Your task to perform on an android device: open a new tab in the chrome app Image 0: 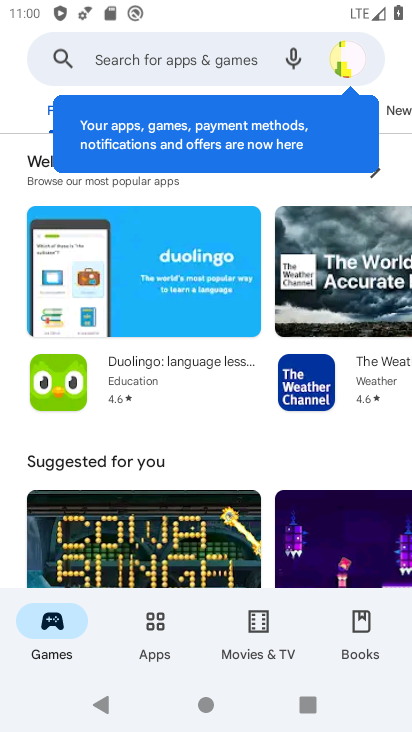
Step 0: press home button
Your task to perform on an android device: open a new tab in the chrome app Image 1: 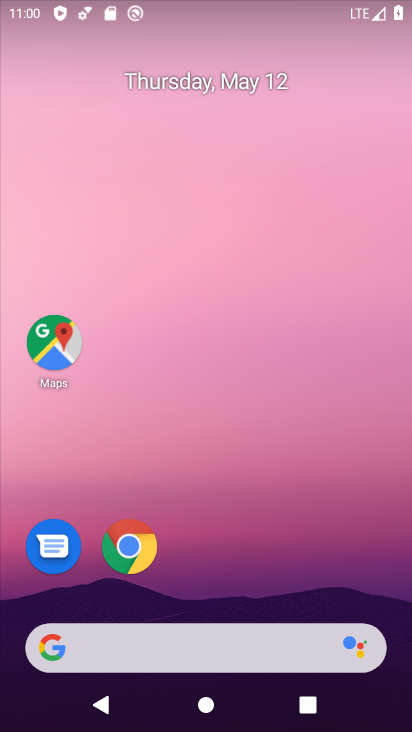
Step 1: click (130, 548)
Your task to perform on an android device: open a new tab in the chrome app Image 2: 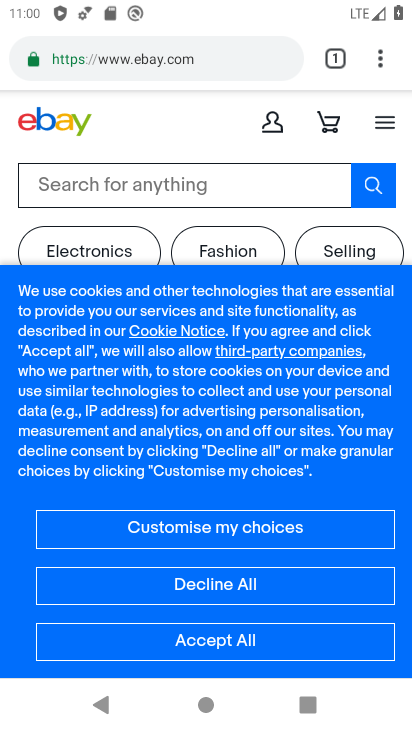
Step 2: click (381, 65)
Your task to perform on an android device: open a new tab in the chrome app Image 3: 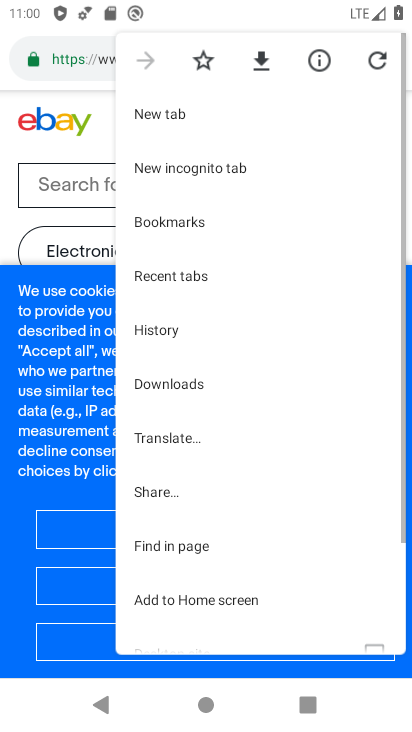
Step 3: click (170, 110)
Your task to perform on an android device: open a new tab in the chrome app Image 4: 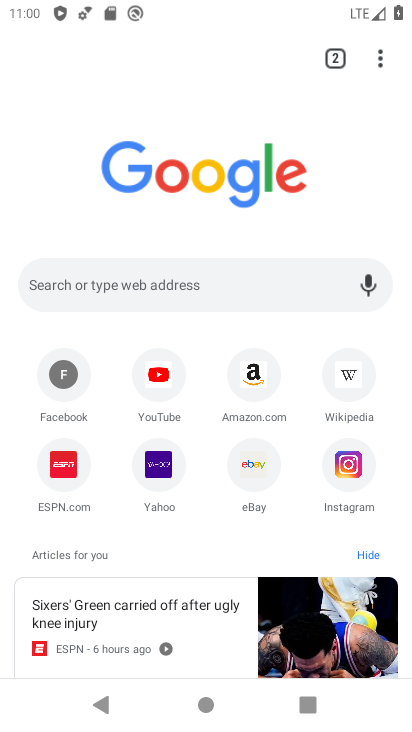
Step 4: task complete